Your task to perform on an android device: change the clock display to analog Image 0: 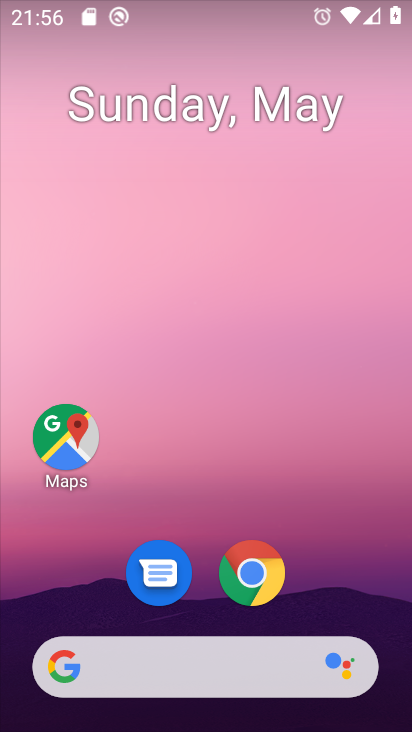
Step 0: drag from (204, 520) to (244, 48)
Your task to perform on an android device: change the clock display to analog Image 1: 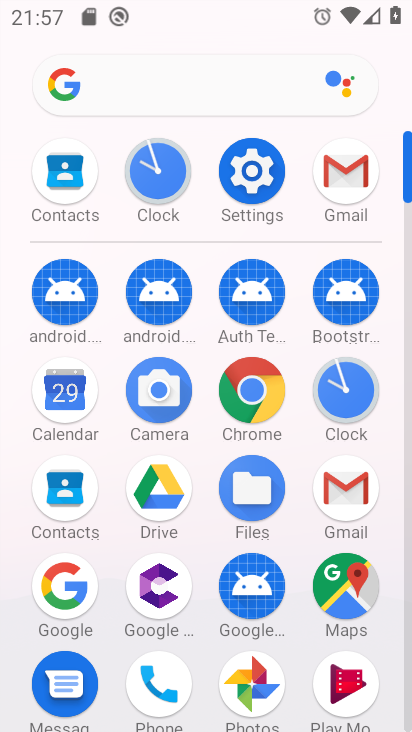
Step 1: click (157, 186)
Your task to perform on an android device: change the clock display to analog Image 2: 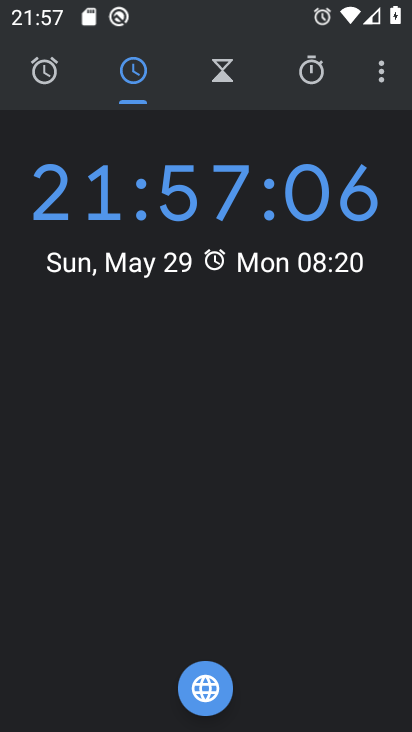
Step 2: click (380, 69)
Your task to perform on an android device: change the clock display to analog Image 3: 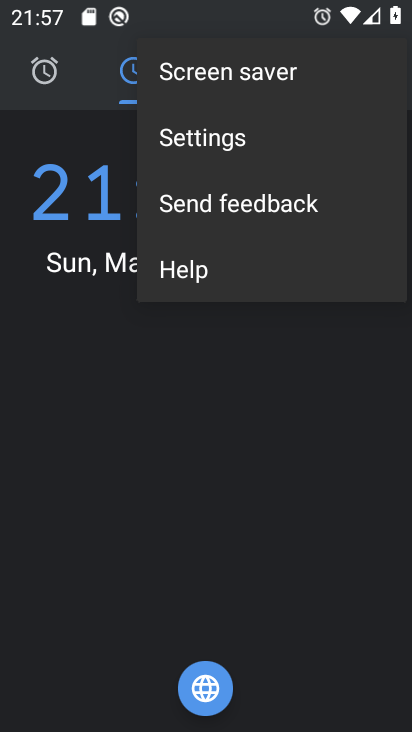
Step 3: click (283, 148)
Your task to perform on an android device: change the clock display to analog Image 4: 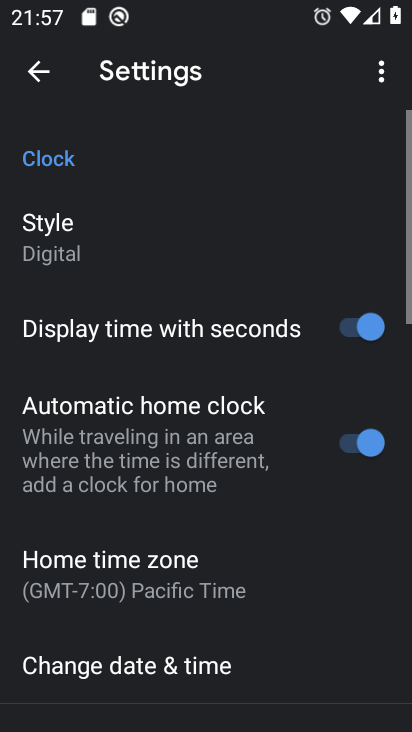
Step 4: click (175, 224)
Your task to perform on an android device: change the clock display to analog Image 5: 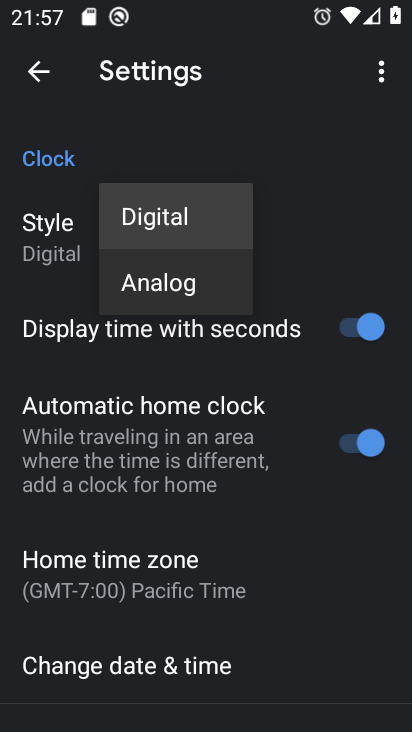
Step 5: click (190, 269)
Your task to perform on an android device: change the clock display to analog Image 6: 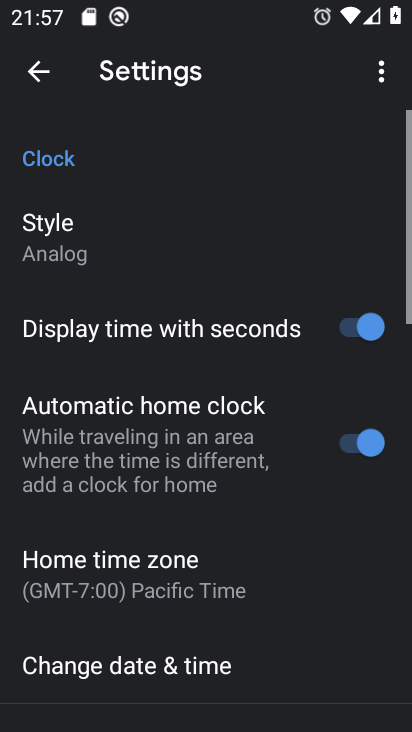
Step 6: click (36, 83)
Your task to perform on an android device: change the clock display to analog Image 7: 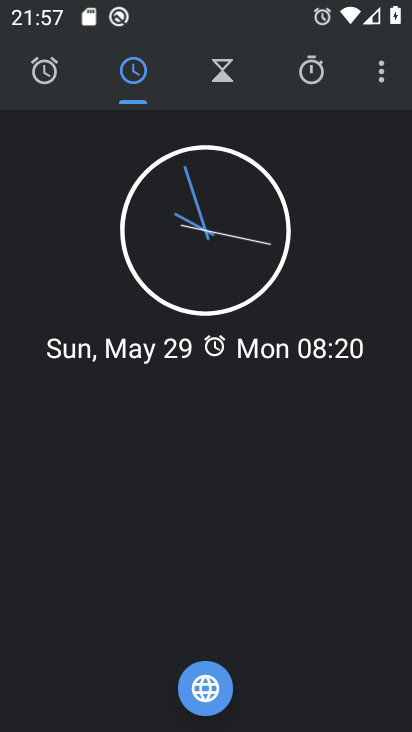
Step 7: task complete